Your task to perform on an android device: add a contact in the contacts app Image 0: 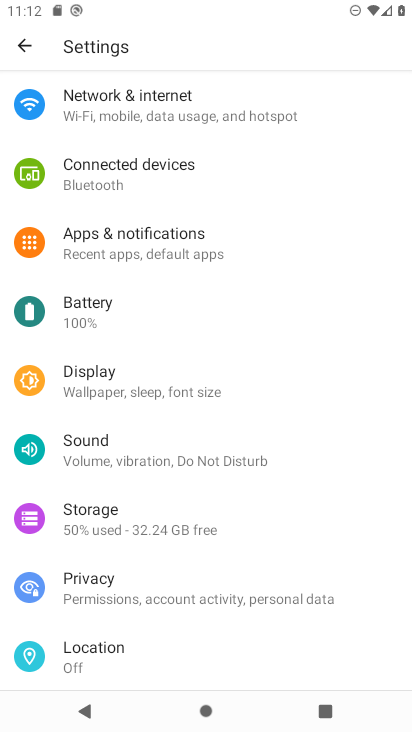
Step 0: press home button
Your task to perform on an android device: add a contact in the contacts app Image 1: 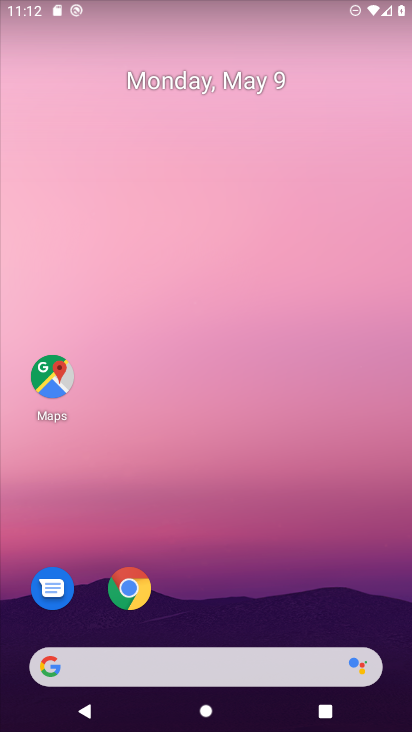
Step 1: drag from (247, 615) to (173, 124)
Your task to perform on an android device: add a contact in the contacts app Image 2: 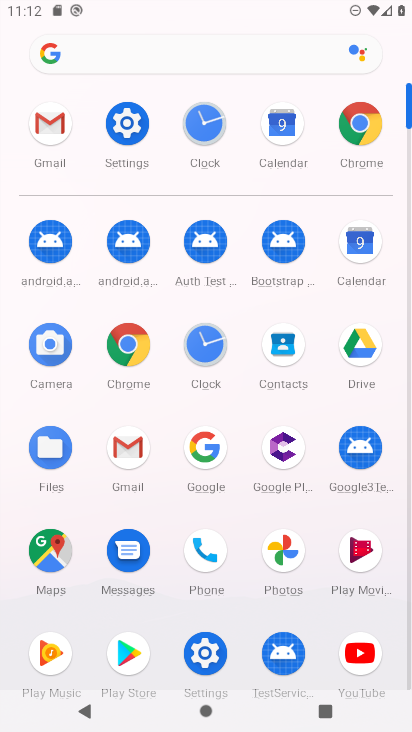
Step 2: click (272, 362)
Your task to perform on an android device: add a contact in the contacts app Image 3: 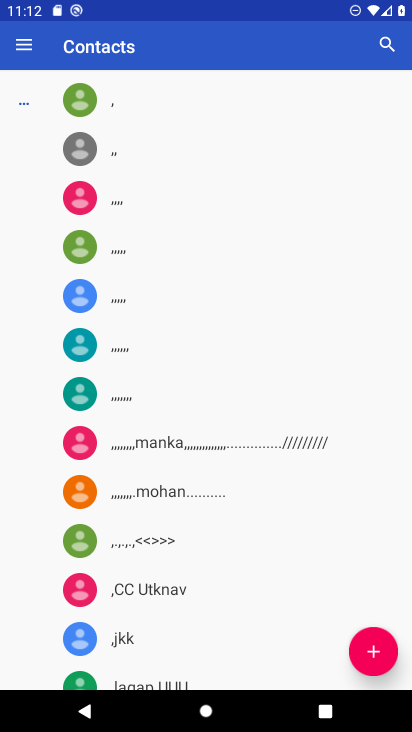
Step 3: click (379, 636)
Your task to perform on an android device: add a contact in the contacts app Image 4: 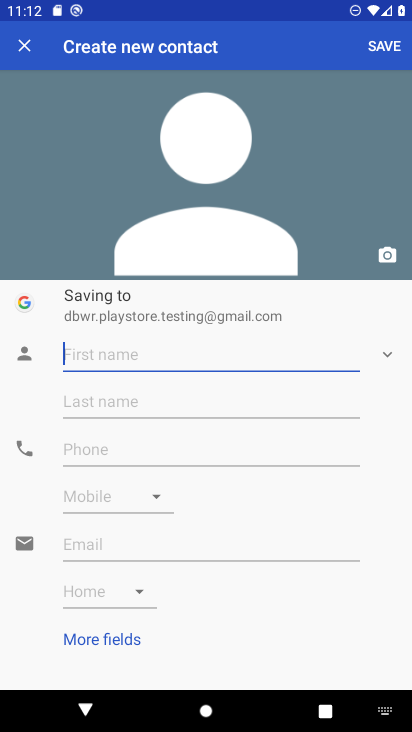
Step 4: type "kjhjhvhjcj"
Your task to perform on an android device: add a contact in the contacts app Image 5: 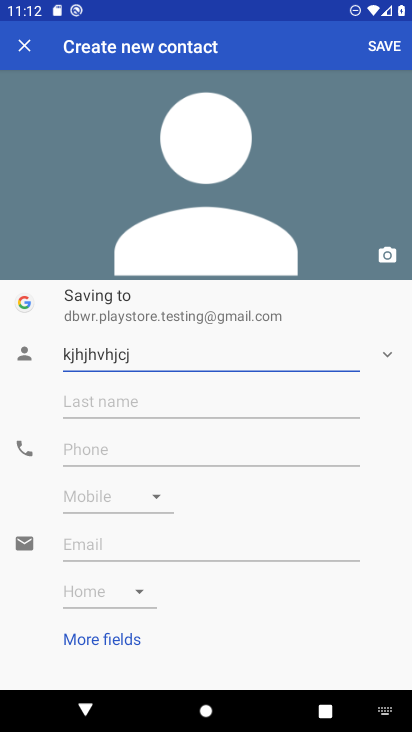
Step 5: click (125, 397)
Your task to perform on an android device: add a contact in the contacts app Image 6: 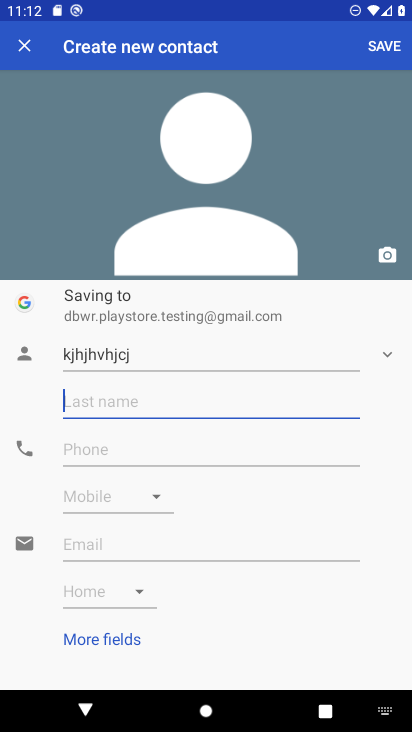
Step 6: type "jchxch"
Your task to perform on an android device: add a contact in the contacts app Image 7: 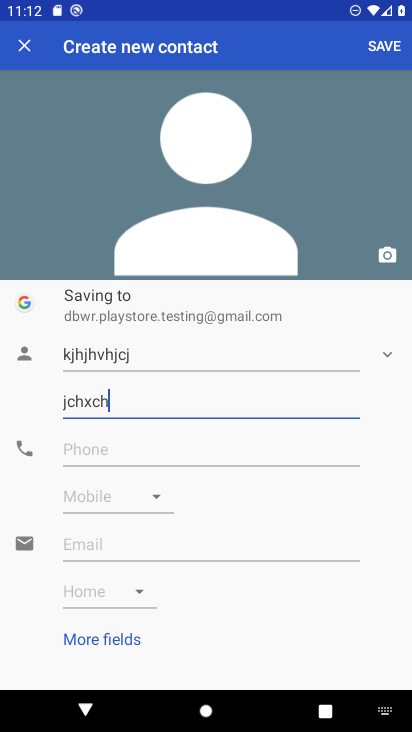
Step 7: click (275, 454)
Your task to perform on an android device: add a contact in the contacts app Image 8: 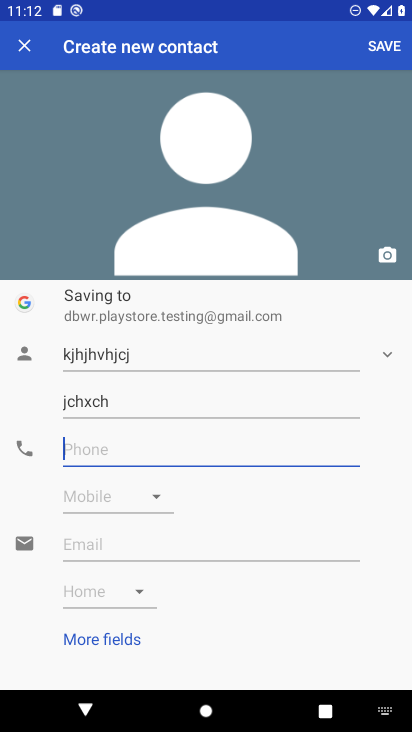
Step 8: type "iu685576"
Your task to perform on an android device: add a contact in the contacts app Image 9: 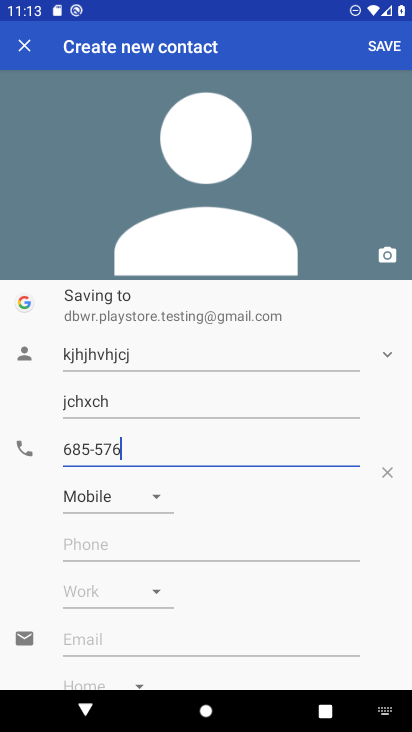
Step 9: click (386, 41)
Your task to perform on an android device: add a contact in the contacts app Image 10: 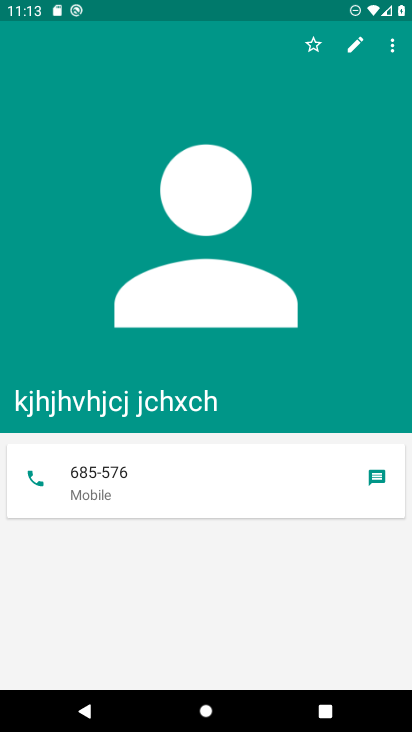
Step 10: task complete